Your task to perform on an android device: change text size in settings app Image 0: 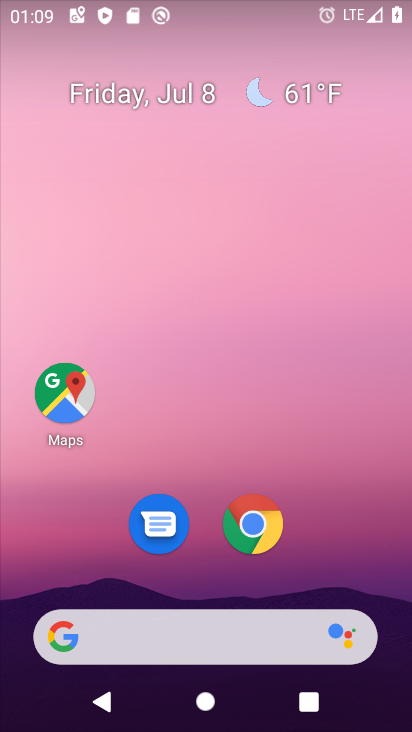
Step 0: drag from (348, 490) to (373, 44)
Your task to perform on an android device: change text size in settings app Image 1: 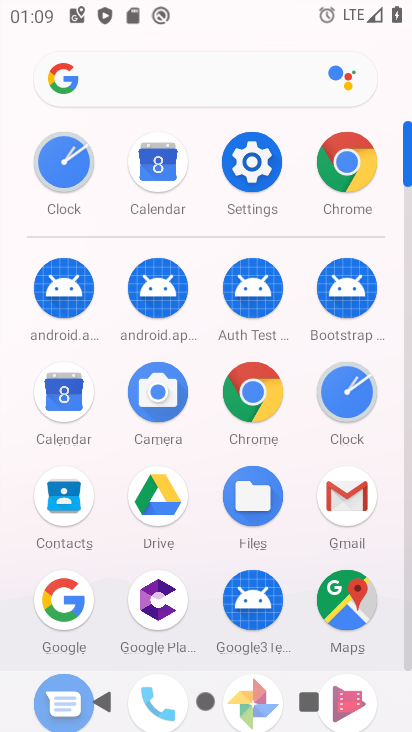
Step 1: click (258, 180)
Your task to perform on an android device: change text size in settings app Image 2: 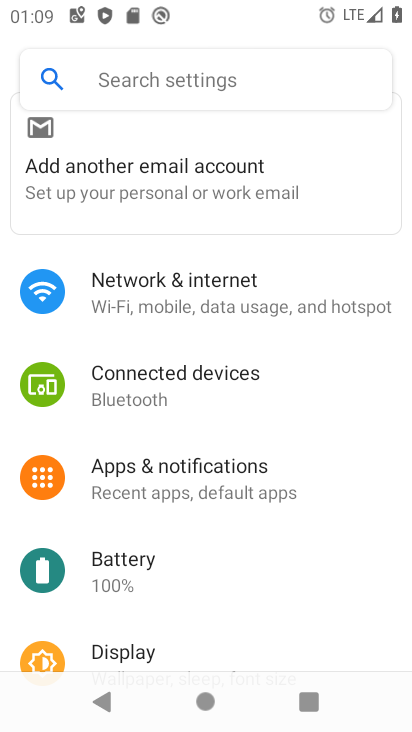
Step 2: drag from (249, 543) to (319, 198)
Your task to perform on an android device: change text size in settings app Image 3: 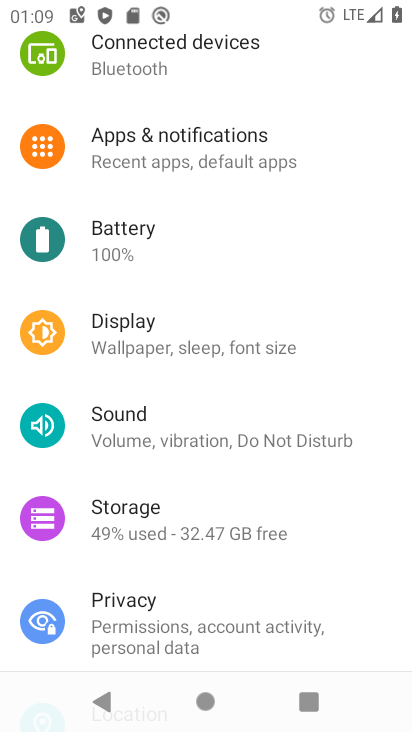
Step 3: click (198, 341)
Your task to perform on an android device: change text size in settings app Image 4: 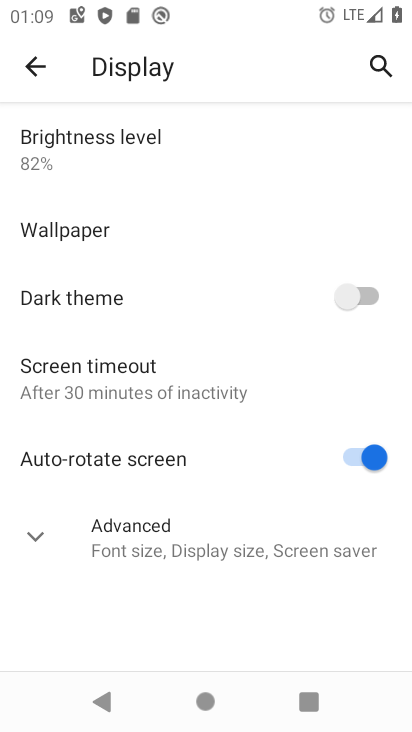
Step 4: click (36, 535)
Your task to perform on an android device: change text size in settings app Image 5: 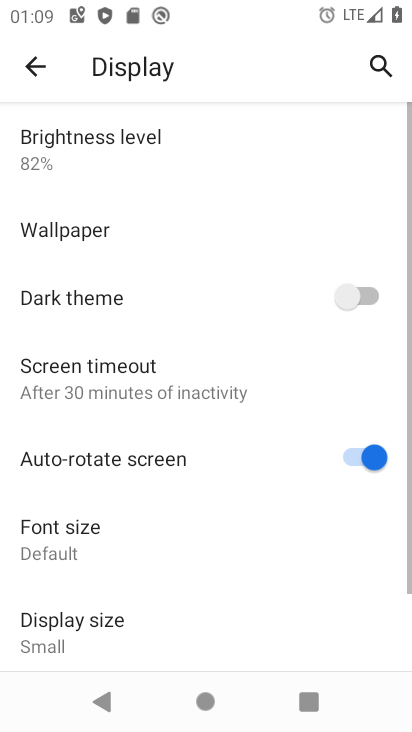
Step 5: drag from (201, 431) to (254, 120)
Your task to perform on an android device: change text size in settings app Image 6: 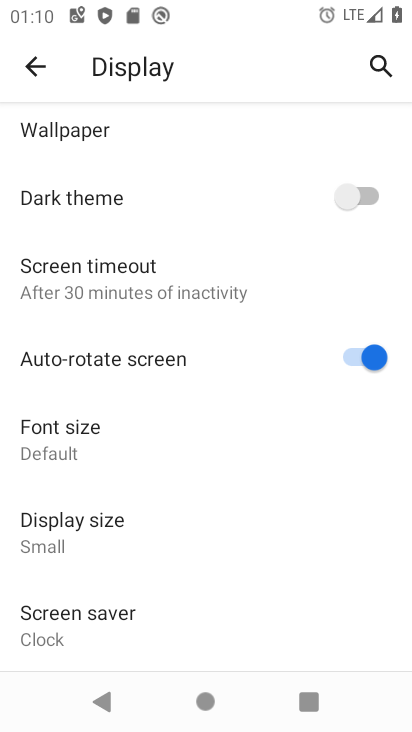
Step 6: click (110, 435)
Your task to perform on an android device: change text size in settings app Image 7: 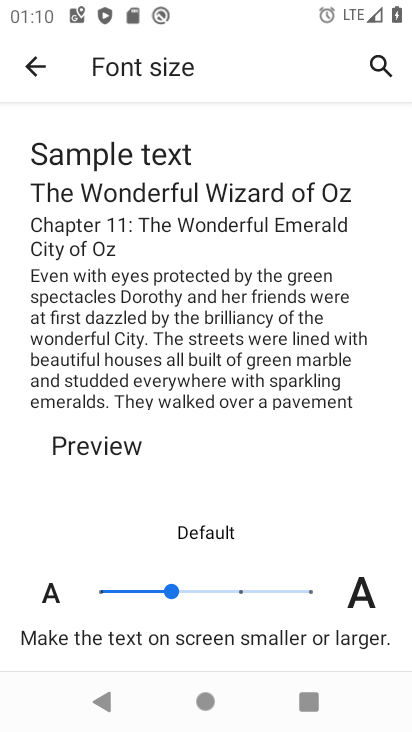
Step 7: click (99, 585)
Your task to perform on an android device: change text size in settings app Image 8: 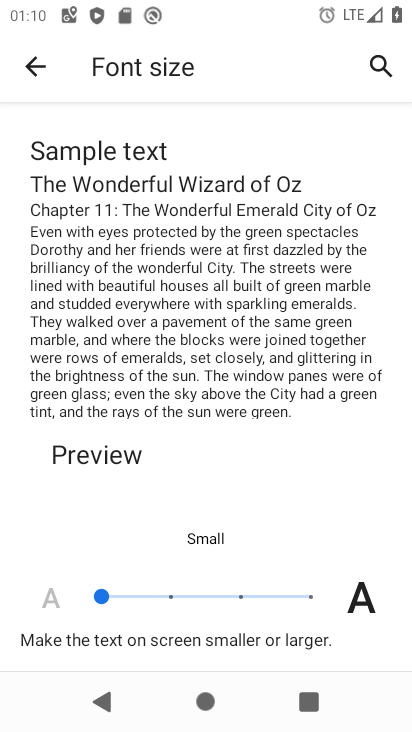
Step 8: click (36, 68)
Your task to perform on an android device: change text size in settings app Image 9: 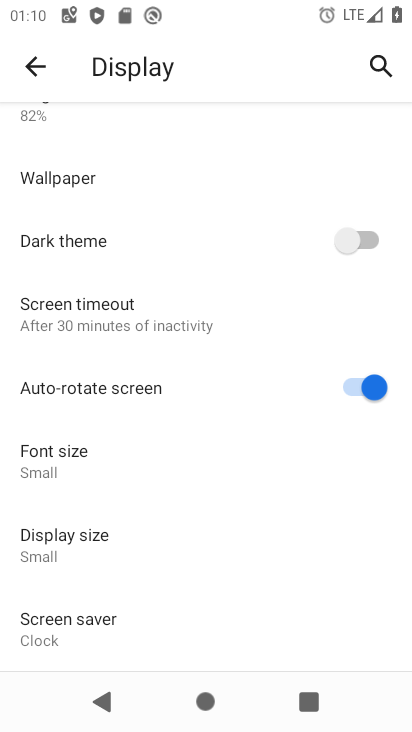
Step 9: task complete